Your task to perform on an android device: Go to privacy settings Image 0: 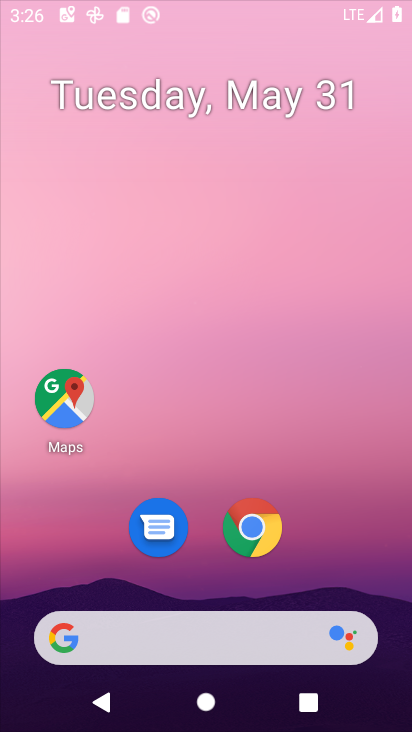
Step 0: click (383, 97)
Your task to perform on an android device: Go to privacy settings Image 1: 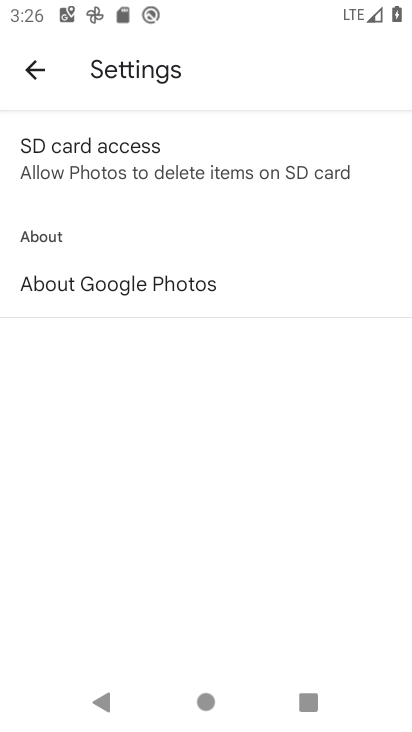
Step 1: press home button
Your task to perform on an android device: Go to privacy settings Image 2: 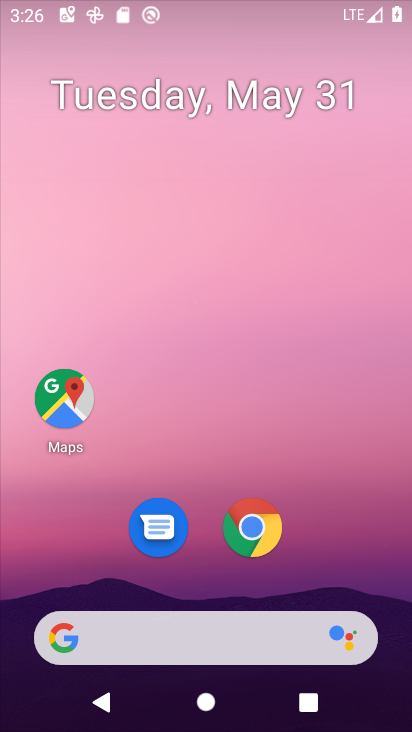
Step 2: drag from (359, 470) to (372, 152)
Your task to perform on an android device: Go to privacy settings Image 3: 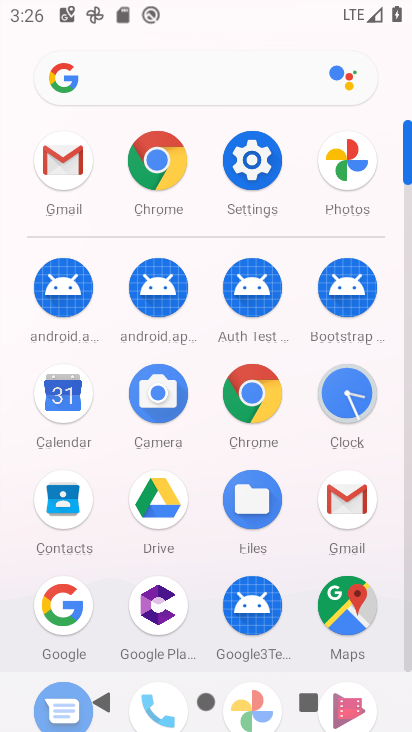
Step 3: click (244, 148)
Your task to perform on an android device: Go to privacy settings Image 4: 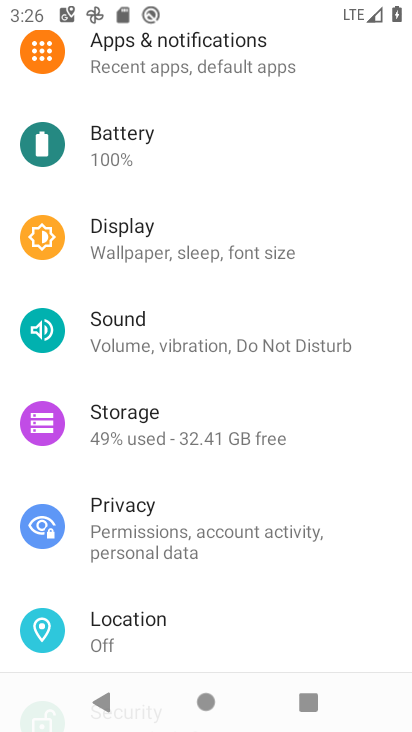
Step 4: click (132, 531)
Your task to perform on an android device: Go to privacy settings Image 5: 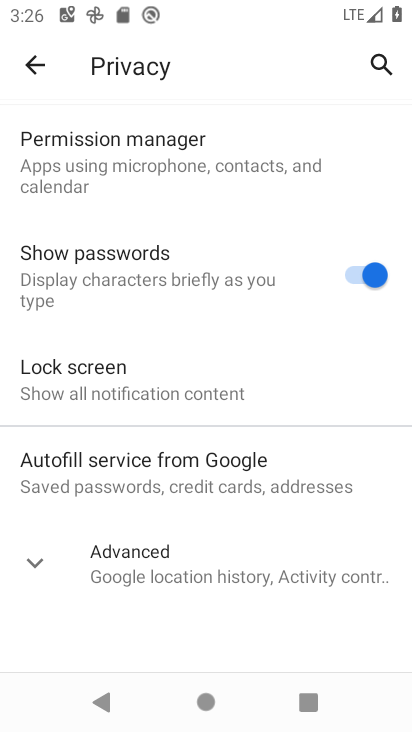
Step 5: task complete